Your task to perform on an android device: Open ESPN.com Image 0: 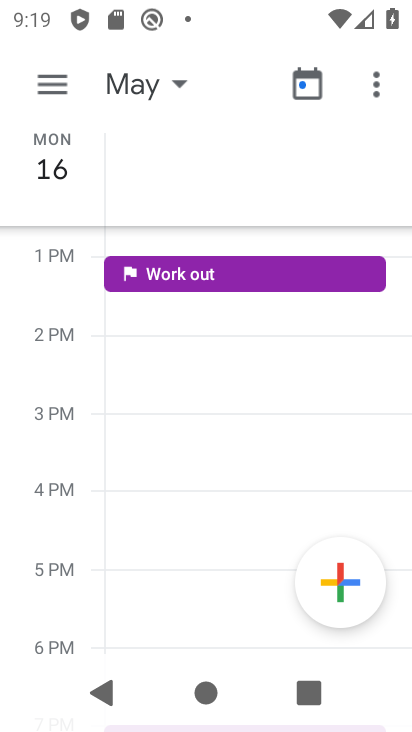
Step 0: press home button
Your task to perform on an android device: Open ESPN.com Image 1: 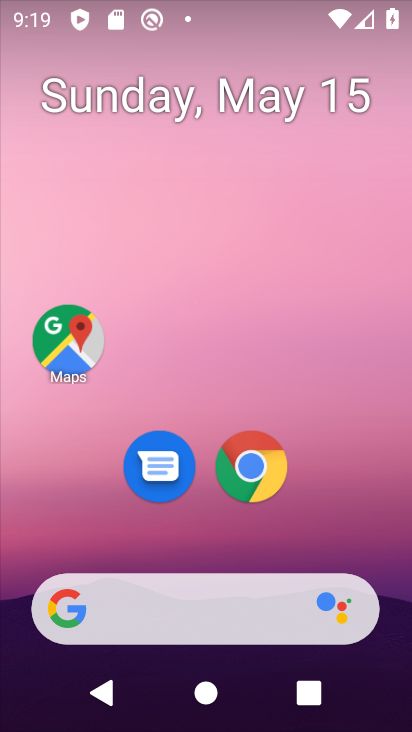
Step 1: click (251, 473)
Your task to perform on an android device: Open ESPN.com Image 2: 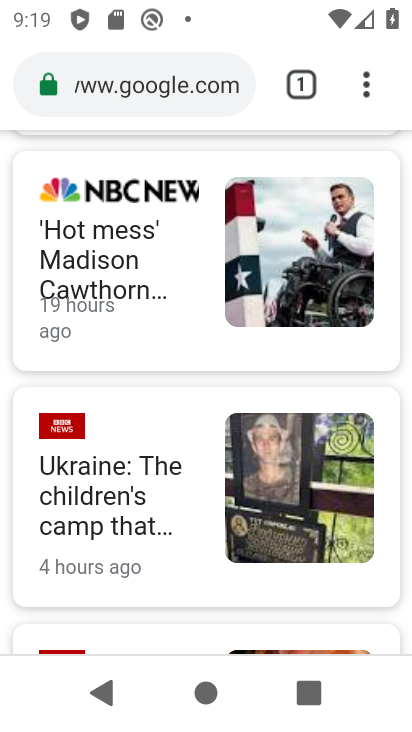
Step 2: click (193, 76)
Your task to perform on an android device: Open ESPN.com Image 3: 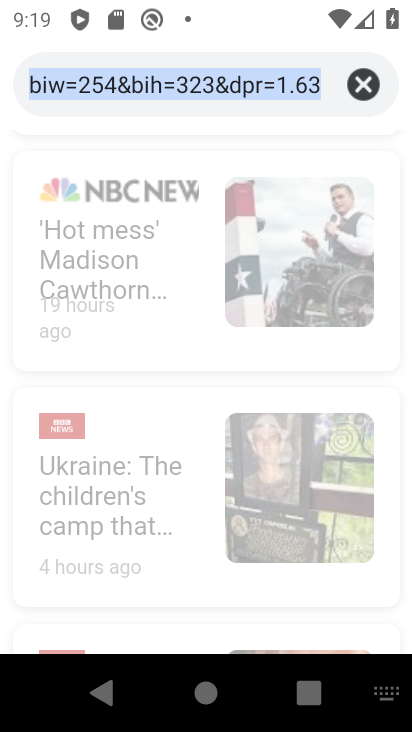
Step 3: type "espn.com"
Your task to perform on an android device: Open ESPN.com Image 4: 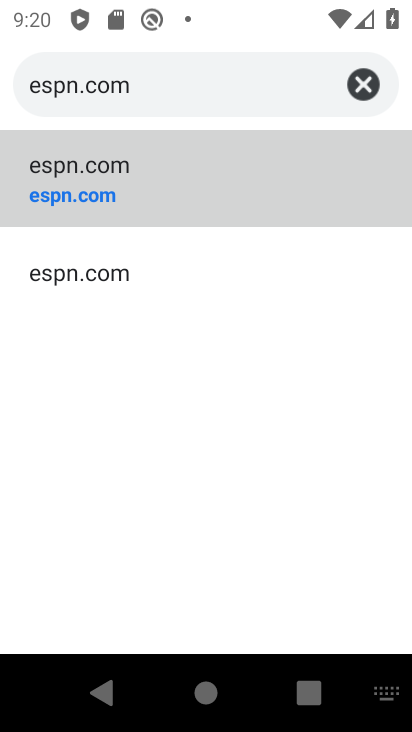
Step 4: click (70, 178)
Your task to perform on an android device: Open ESPN.com Image 5: 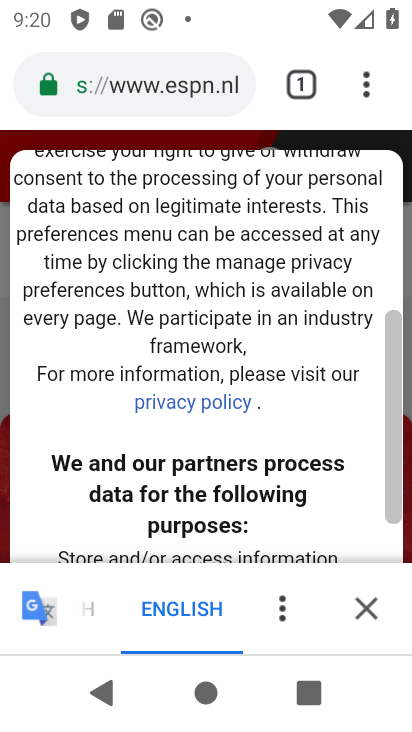
Step 5: task complete